Your task to perform on an android device: read, delete, or share a saved page in the chrome app Image 0: 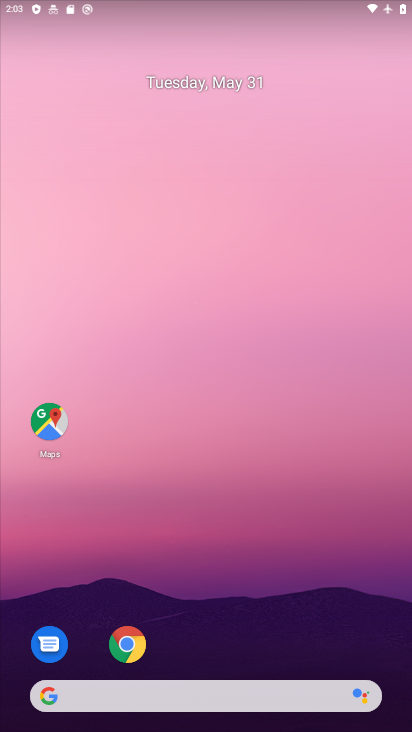
Step 0: click (120, 646)
Your task to perform on an android device: read, delete, or share a saved page in the chrome app Image 1: 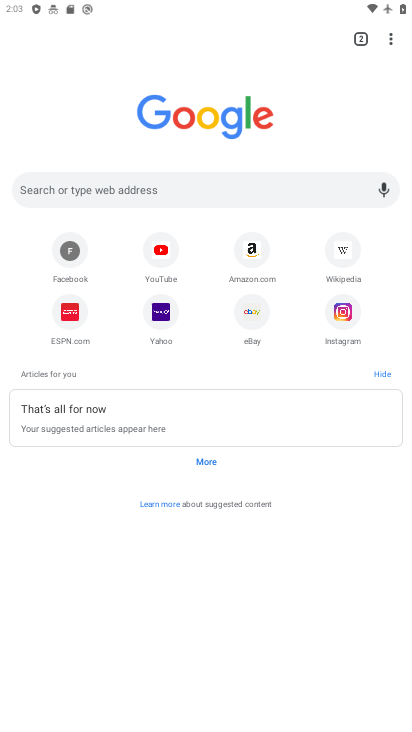
Step 1: click (392, 37)
Your task to perform on an android device: read, delete, or share a saved page in the chrome app Image 2: 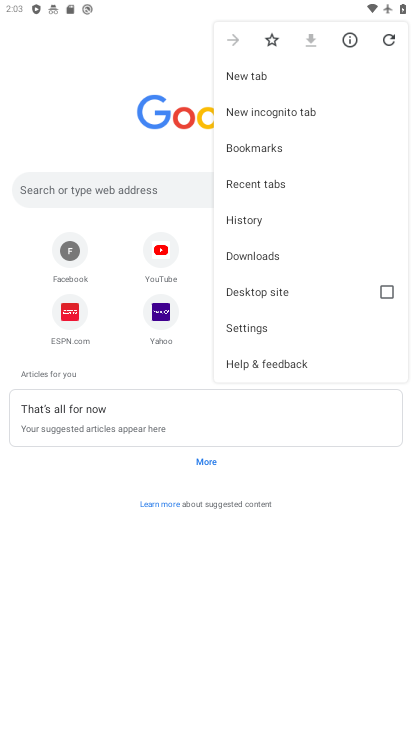
Step 2: click (241, 258)
Your task to perform on an android device: read, delete, or share a saved page in the chrome app Image 3: 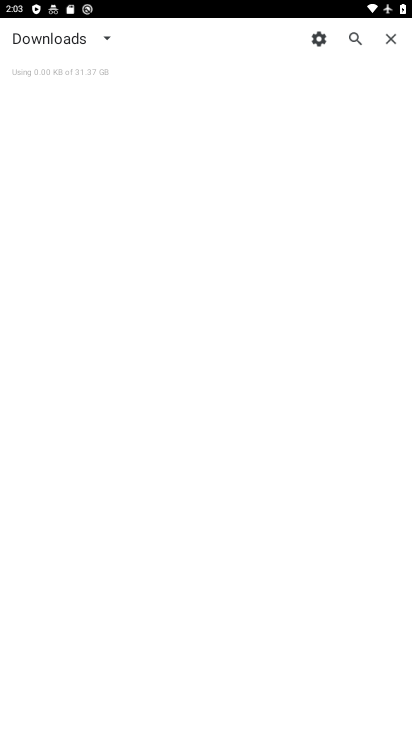
Step 3: task complete